Your task to perform on an android device: toggle show notifications on the lock screen Image 0: 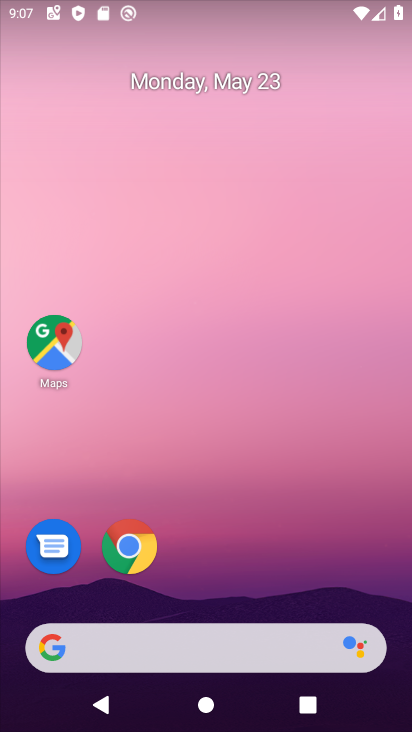
Step 0: drag from (298, 505) to (289, 109)
Your task to perform on an android device: toggle show notifications on the lock screen Image 1: 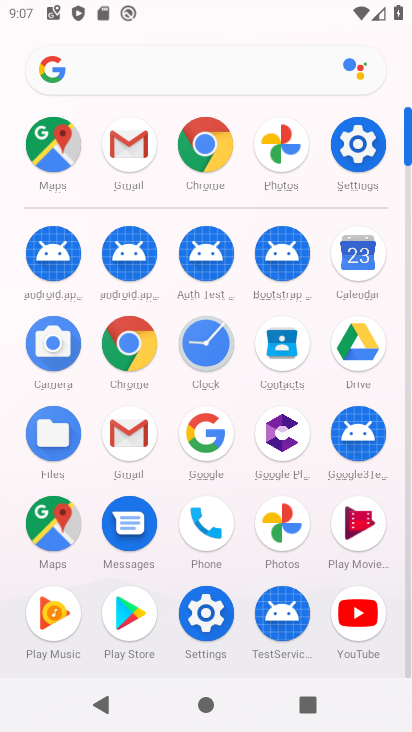
Step 1: click (370, 138)
Your task to perform on an android device: toggle show notifications on the lock screen Image 2: 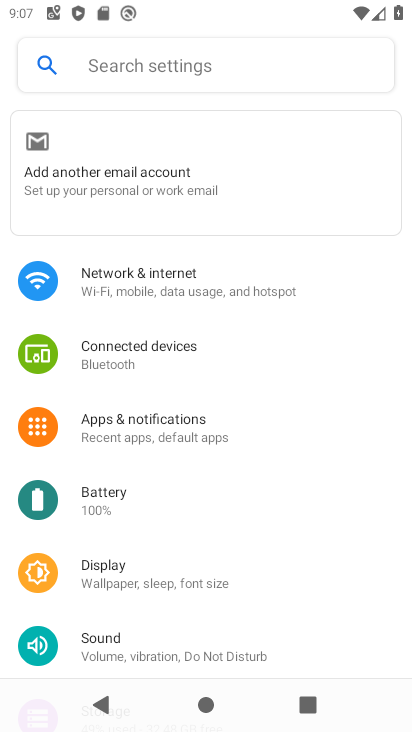
Step 2: click (213, 433)
Your task to perform on an android device: toggle show notifications on the lock screen Image 3: 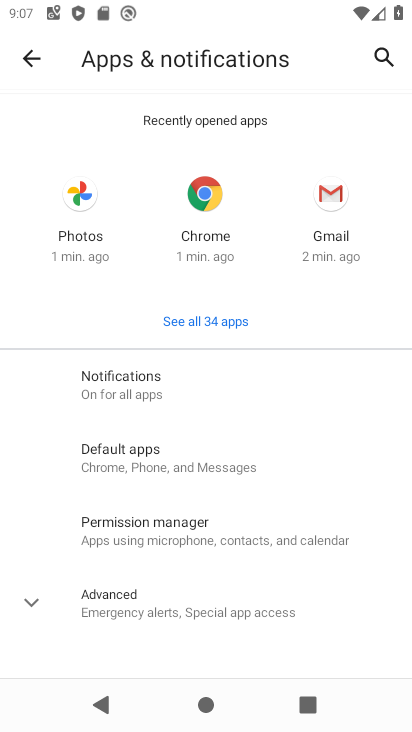
Step 3: click (194, 404)
Your task to perform on an android device: toggle show notifications on the lock screen Image 4: 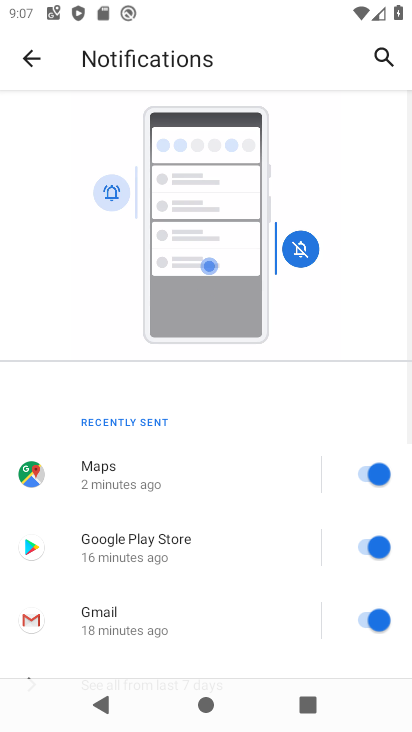
Step 4: drag from (255, 510) to (363, 89)
Your task to perform on an android device: toggle show notifications on the lock screen Image 5: 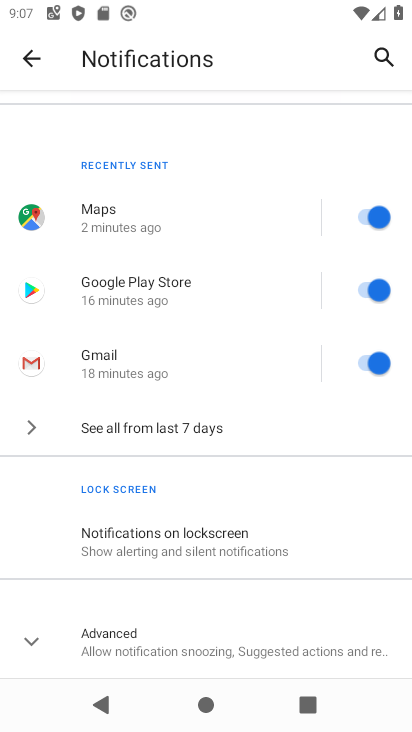
Step 5: click (234, 521)
Your task to perform on an android device: toggle show notifications on the lock screen Image 6: 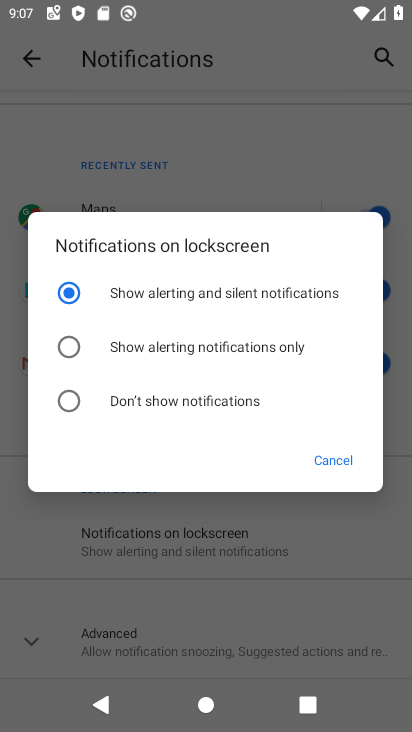
Step 6: click (271, 355)
Your task to perform on an android device: toggle show notifications on the lock screen Image 7: 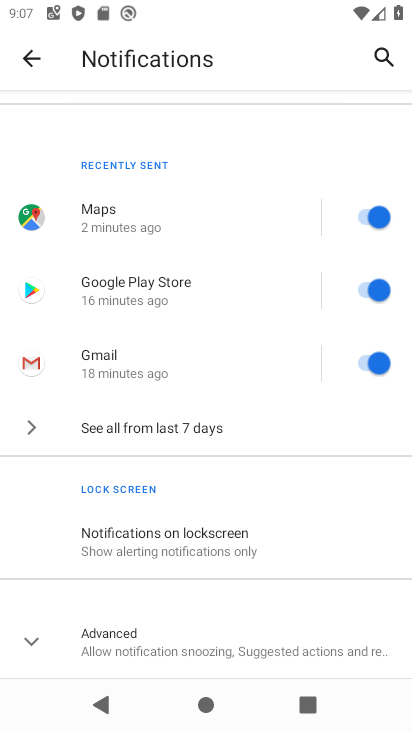
Step 7: task complete